Your task to perform on an android device: toggle notification dots Image 0: 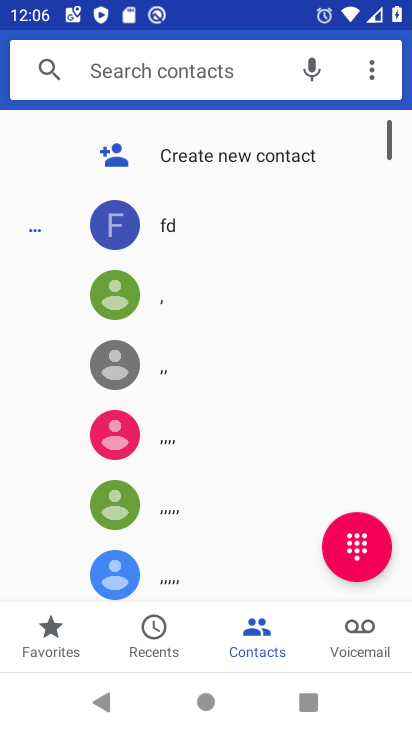
Step 0: press home button
Your task to perform on an android device: toggle notification dots Image 1: 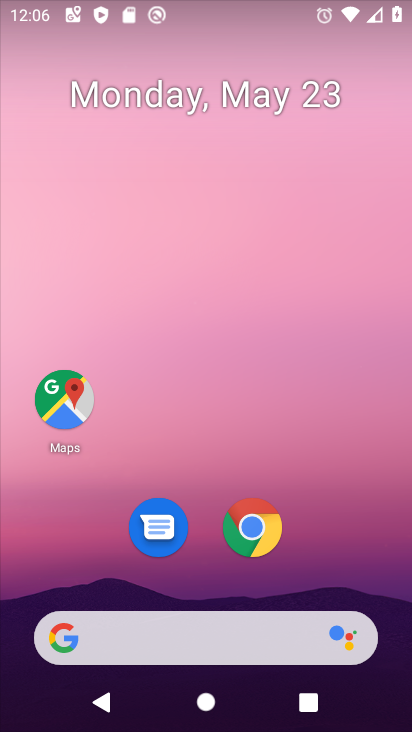
Step 1: drag from (356, 582) to (279, 75)
Your task to perform on an android device: toggle notification dots Image 2: 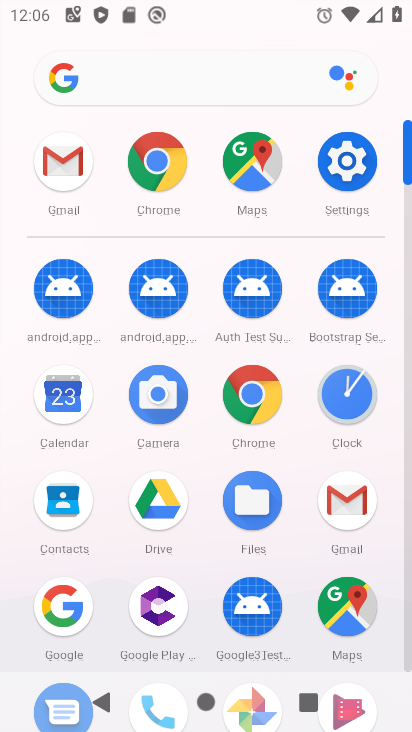
Step 2: click (339, 177)
Your task to perform on an android device: toggle notification dots Image 3: 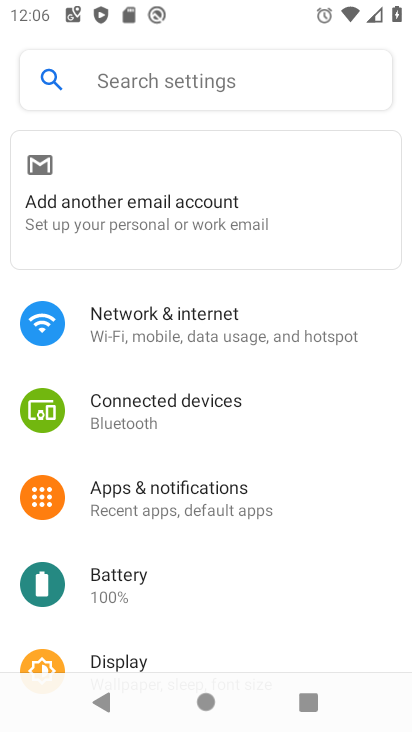
Step 3: drag from (247, 556) to (237, 147)
Your task to perform on an android device: toggle notification dots Image 4: 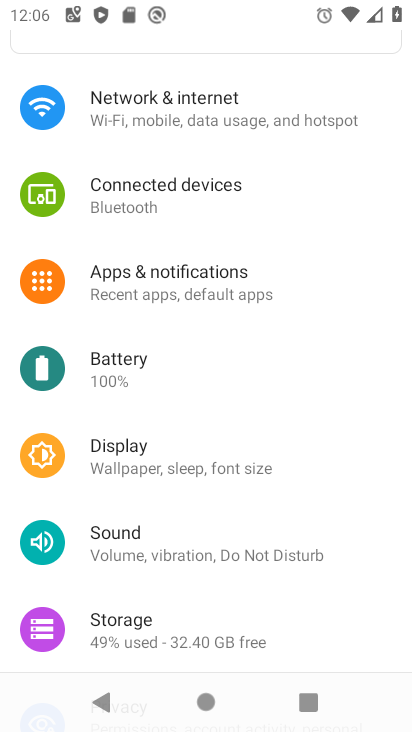
Step 4: click (278, 289)
Your task to perform on an android device: toggle notification dots Image 5: 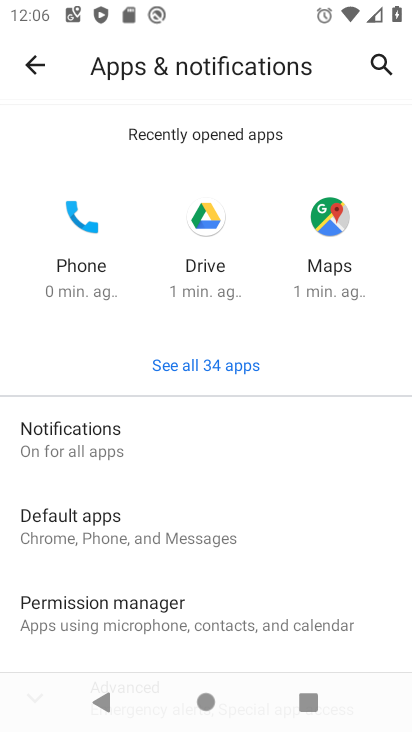
Step 5: drag from (141, 546) to (175, 202)
Your task to perform on an android device: toggle notification dots Image 6: 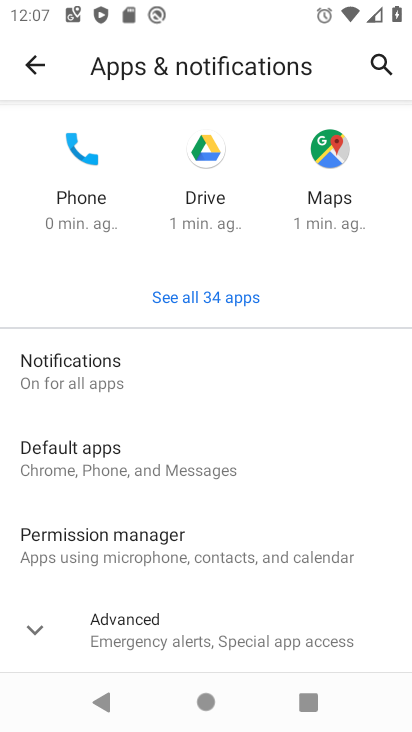
Step 6: click (191, 377)
Your task to perform on an android device: toggle notification dots Image 7: 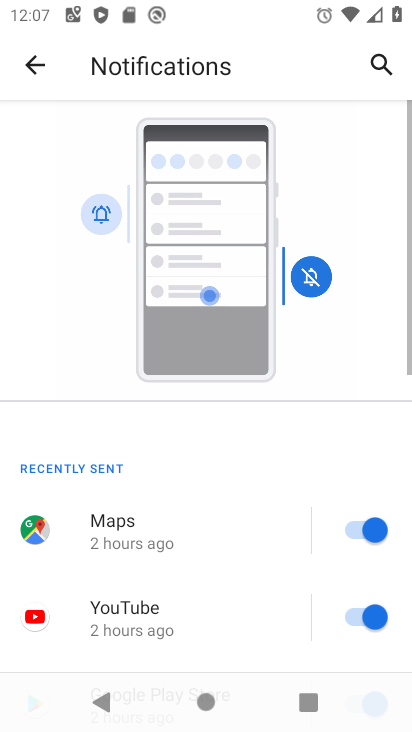
Step 7: drag from (251, 597) to (292, 172)
Your task to perform on an android device: toggle notification dots Image 8: 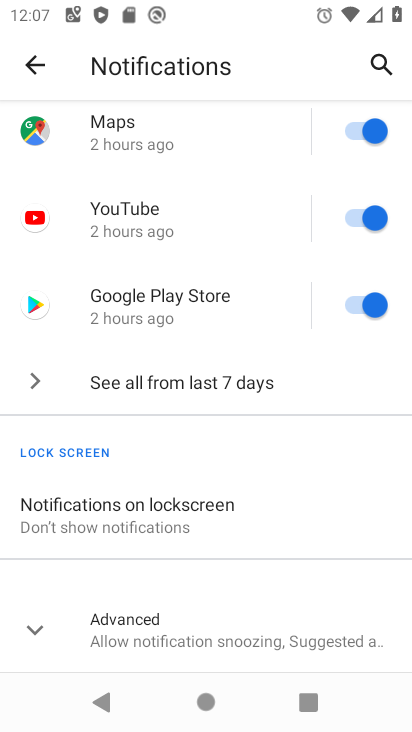
Step 8: drag from (207, 565) to (242, 214)
Your task to perform on an android device: toggle notification dots Image 9: 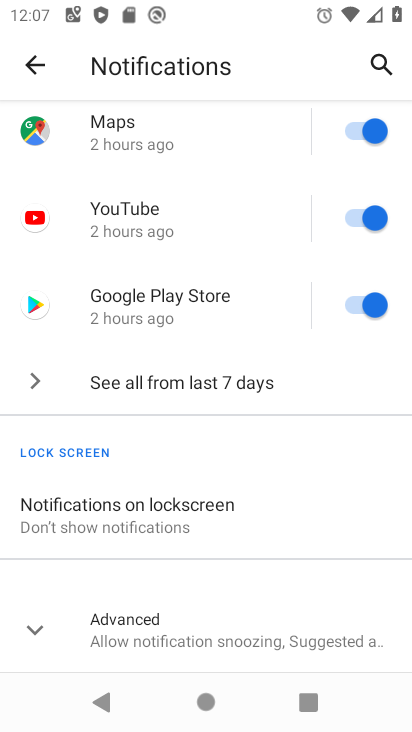
Step 9: click (194, 638)
Your task to perform on an android device: toggle notification dots Image 10: 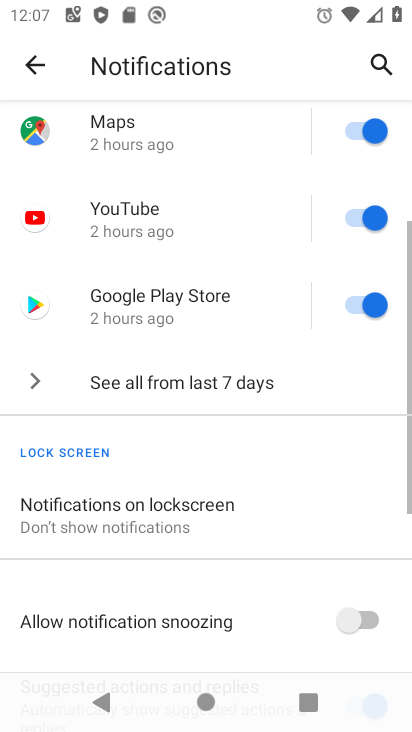
Step 10: drag from (241, 553) to (247, 272)
Your task to perform on an android device: toggle notification dots Image 11: 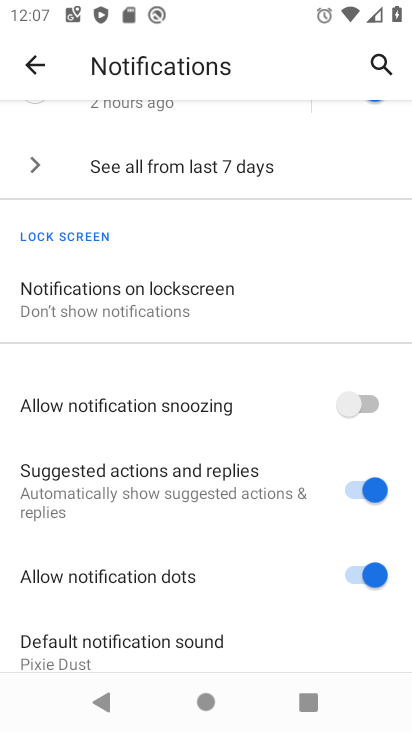
Step 11: click (344, 584)
Your task to perform on an android device: toggle notification dots Image 12: 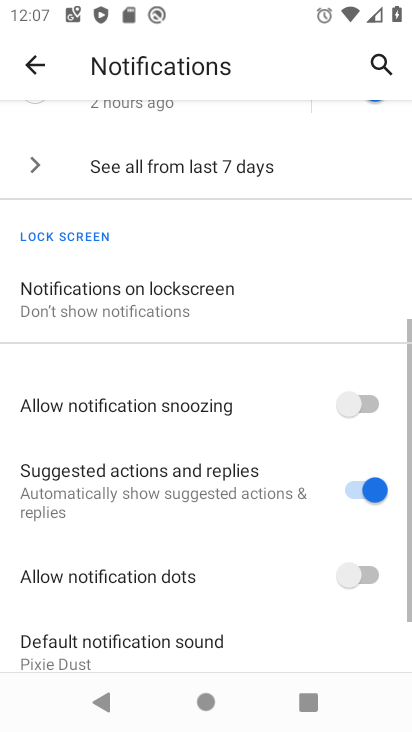
Step 12: task complete